Your task to perform on an android device: Go to battery settings Image 0: 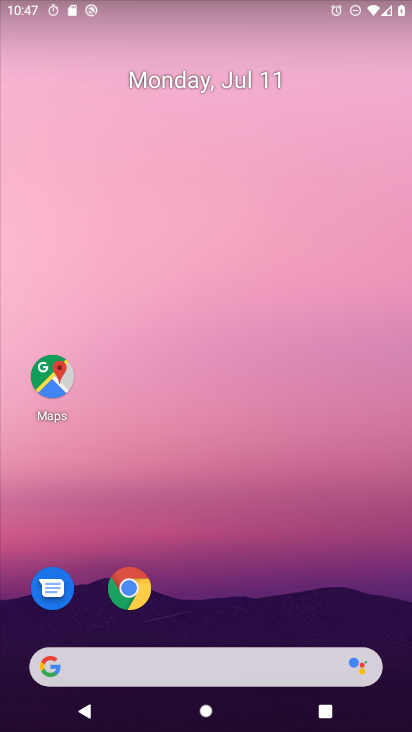
Step 0: drag from (284, 613) to (299, 0)
Your task to perform on an android device: Go to battery settings Image 1: 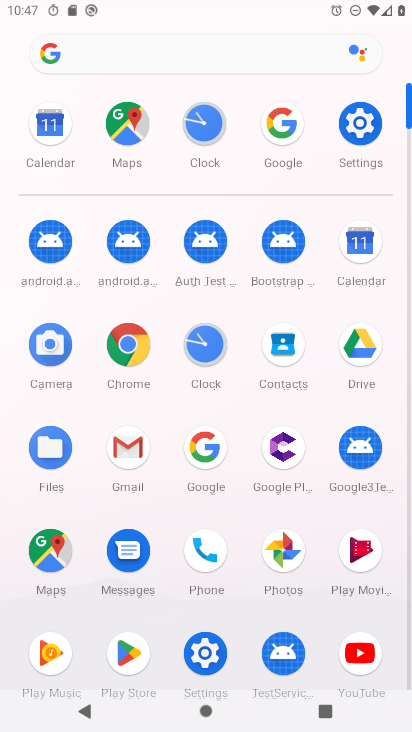
Step 1: click (363, 126)
Your task to perform on an android device: Go to battery settings Image 2: 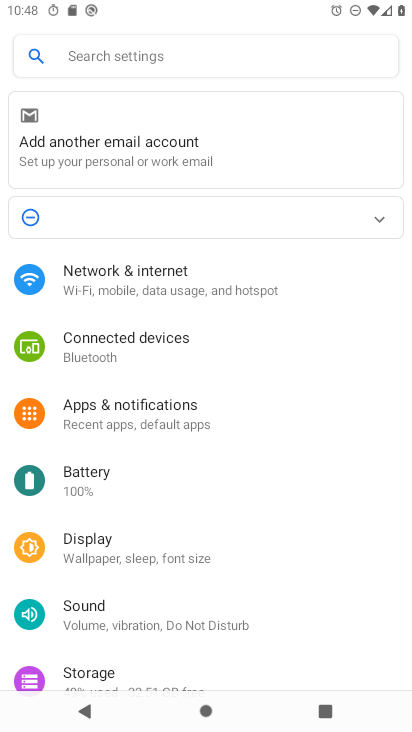
Step 2: click (95, 470)
Your task to perform on an android device: Go to battery settings Image 3: 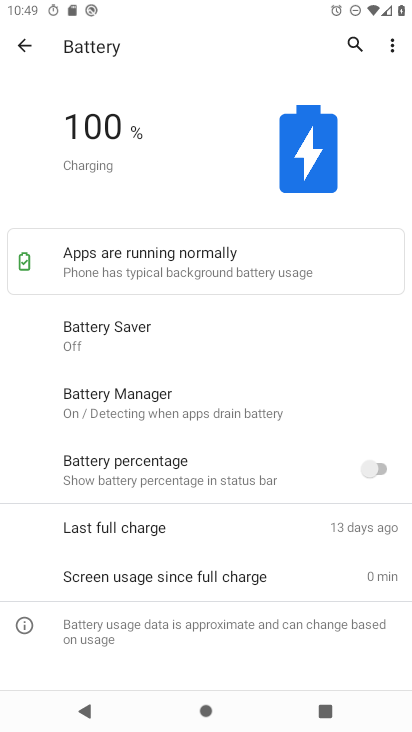
Step 3: task complete